Your task to perform on an android device: toggle location history Image 0: 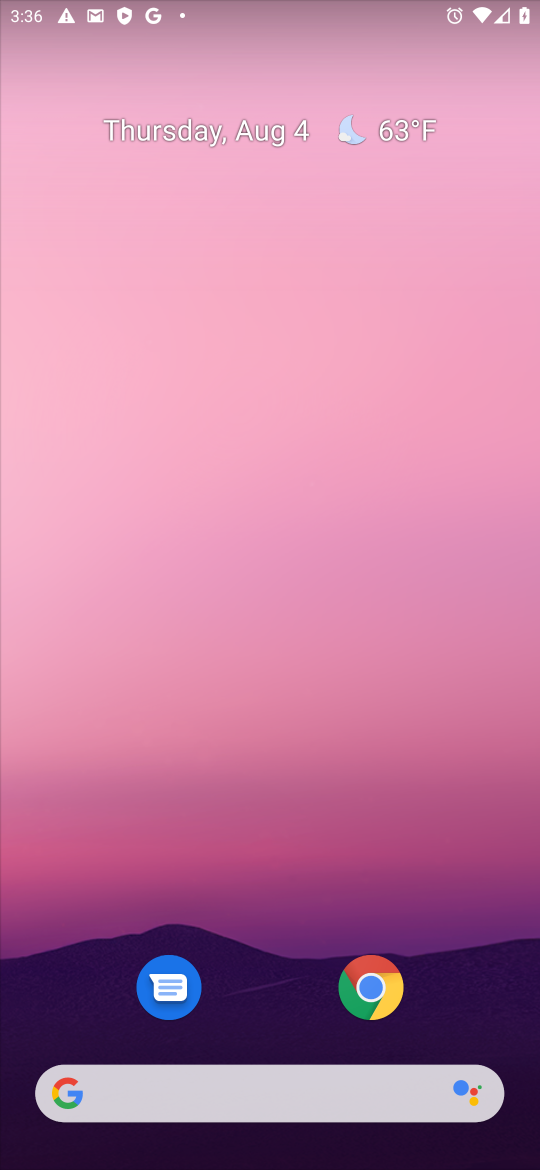
Step 0: drag from (237, 778) to (257, 350)
Your task to perform on an android device: toggle location history Image 1: 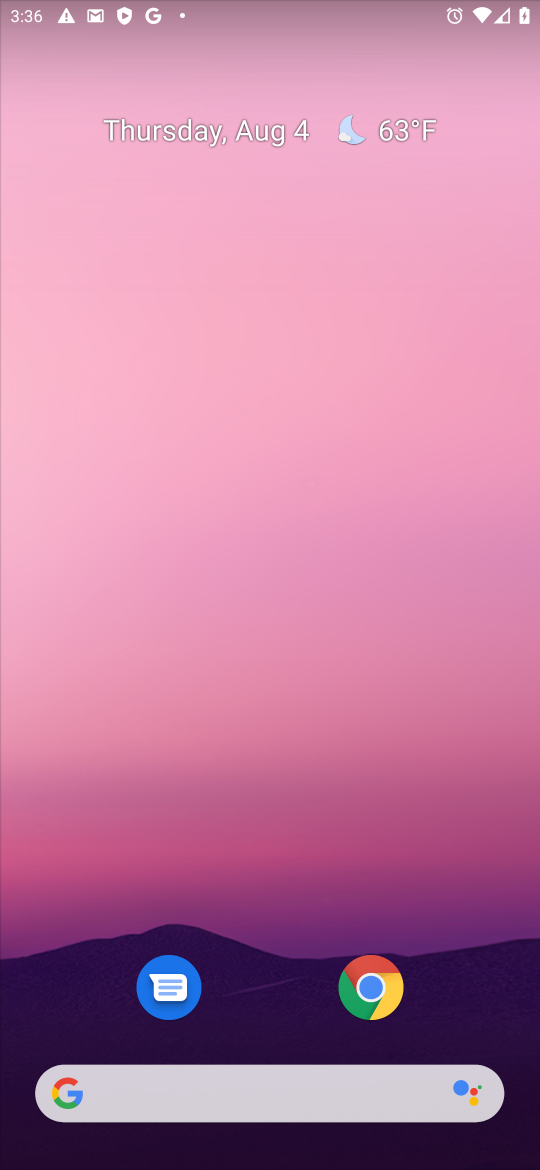
Step 1: drag from (246, 964) to (245, 542)
Your task to perform on an android device: toggle location history Image 2: 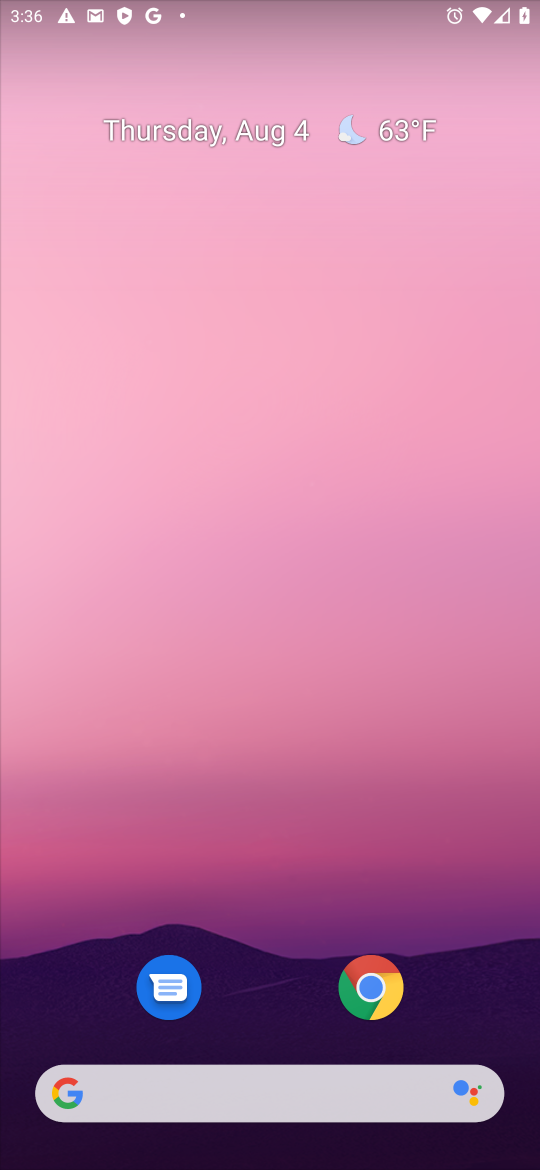
Step 2: drag from (258, 877) to (318, 403)
Your task to perform on an android device: toggle location history Image 3: 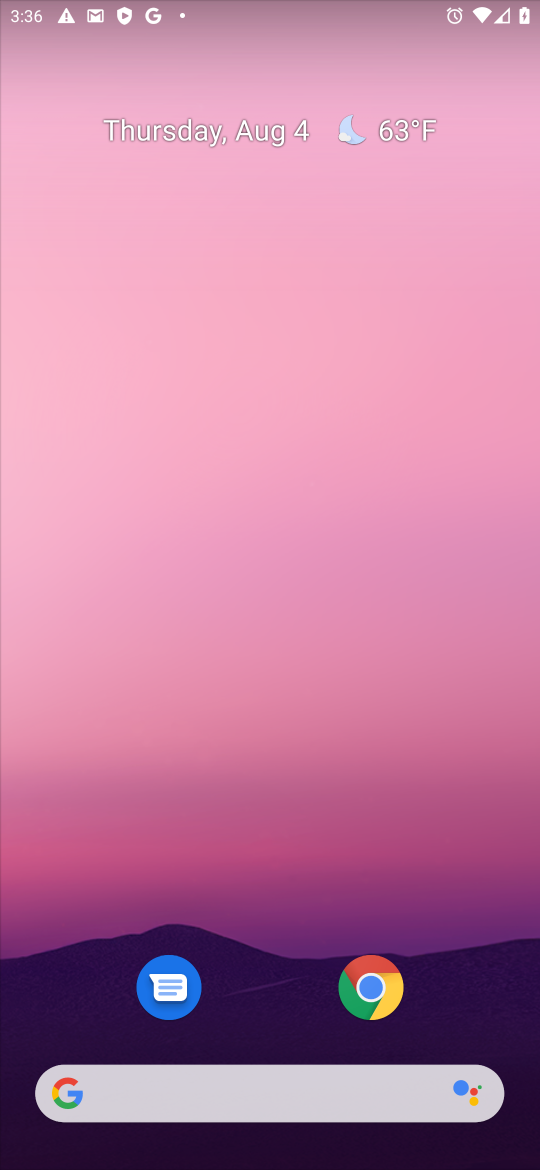
Step 3: drag from (245, 1006) to (279, 332)
Your task to perform on an android device: toggle location history Image 4: 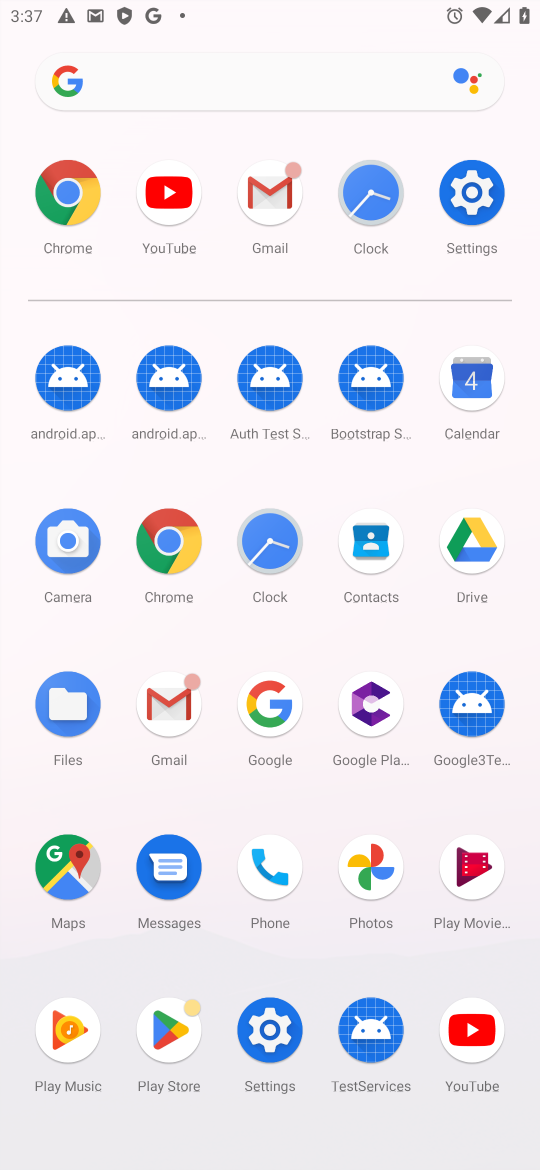
Step 4: click (269, 1038)
Your task to perform on an android device: toggle location history Image 5: 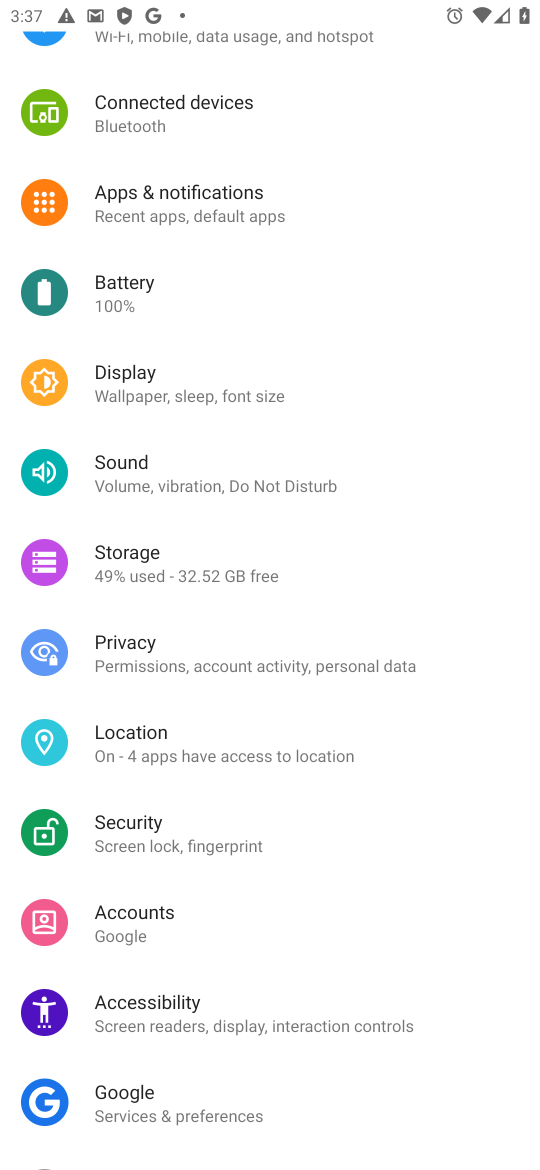
Step 5: click (242, 752)
Your task to perform on an android device: toggle location history Image 6: 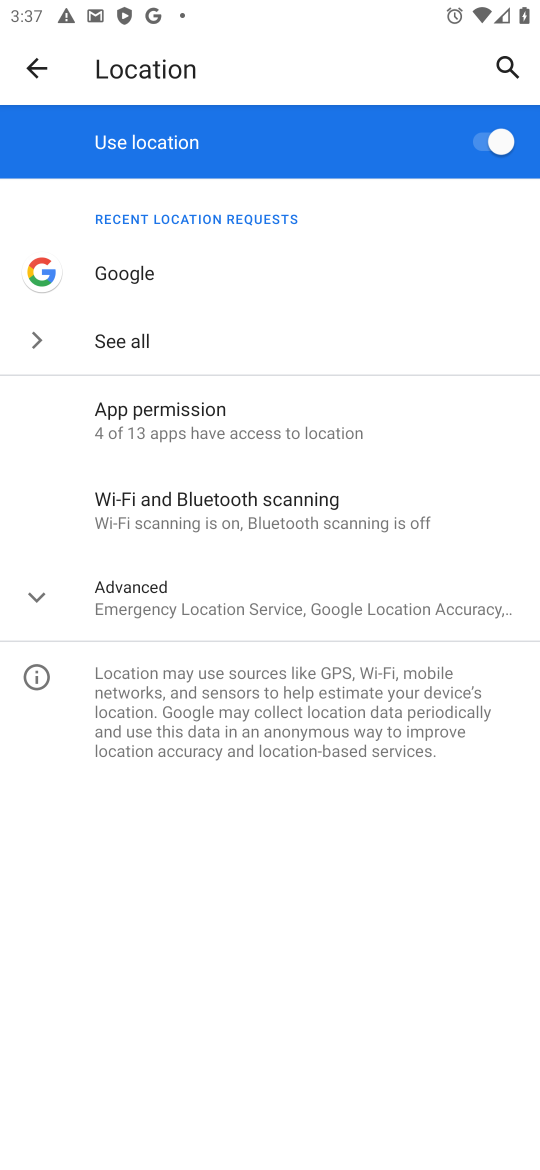
Step 6: click (108, 609)
Your task to perform on an android device: toggle location history Image 7: 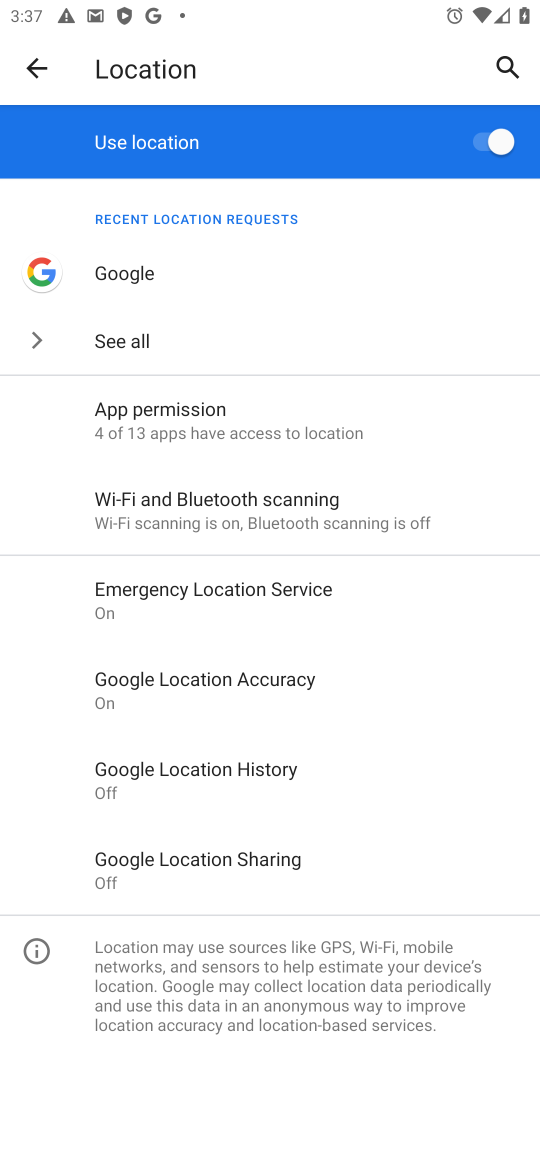
Step 7: click (208, 770)
Your task to perform on an android device: toggle location history Image 8: 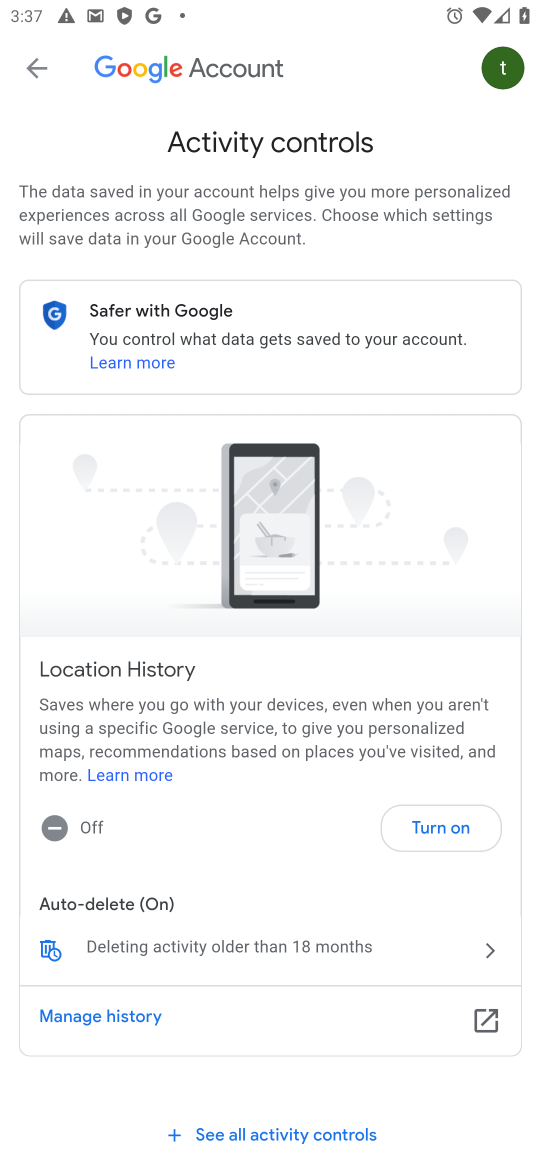
Step 8: click (440, 831)
Your task to perform on an android device: toggle location history Image 9: 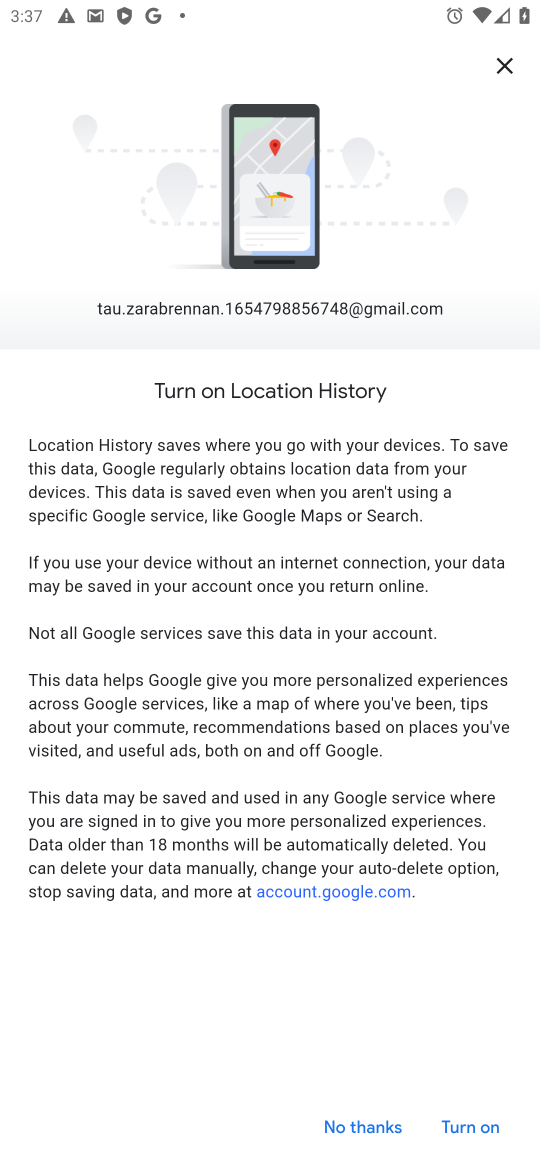
Step 9: click (444, 1123)
Your task to perform on an android device: toggle location history Image 10: 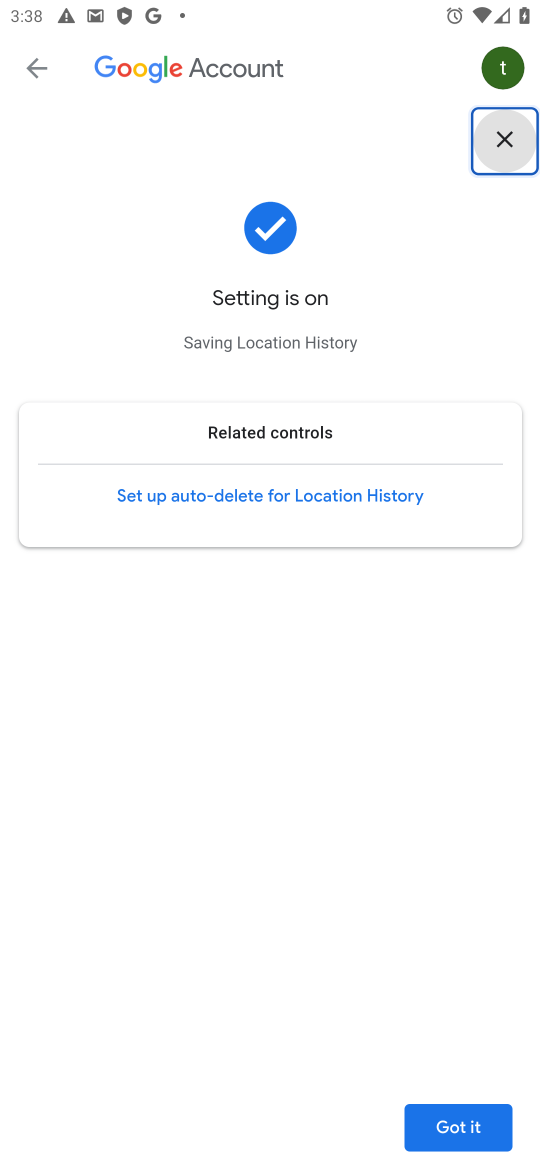
Step 10: click (470, 1123)
Your task to perform on an android device: toggle location history Image 11: 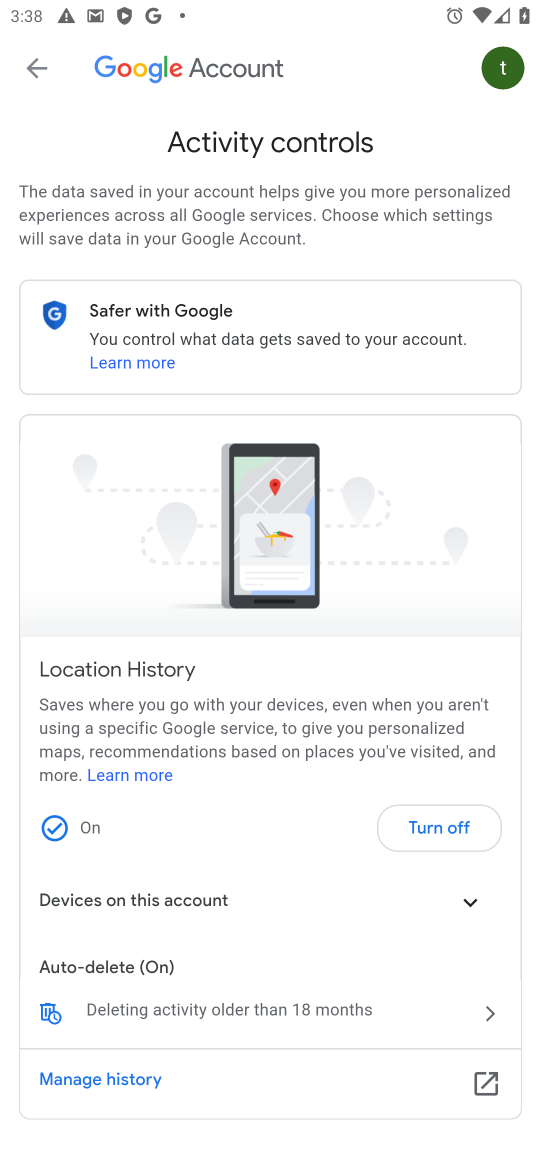
Step 11: task complete